Your task to perform on an android device: find which apps use the phone's location Image 0: 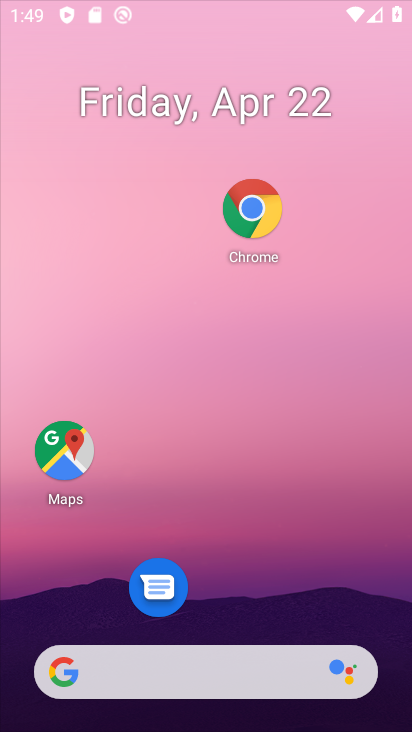
Step 0: drag from (223, 483) to (257, 130)
Your task to perform on an android device: find which apps use the phone's location Image 1: 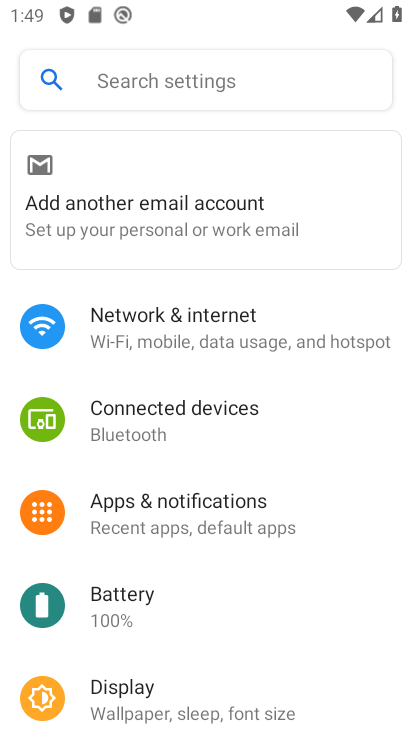
Step 1: drag from (206, 547) to (234, 91)
Your task to perform on an android device: find which apps use the phone's location Image 2: 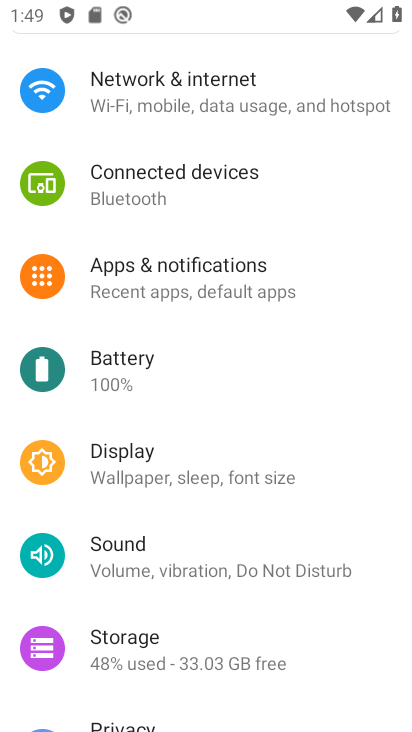
Step 2: drag from (166, 631) to (230, 240)
Your task to perform on an android device: find which apps use the phone's location Image 3: 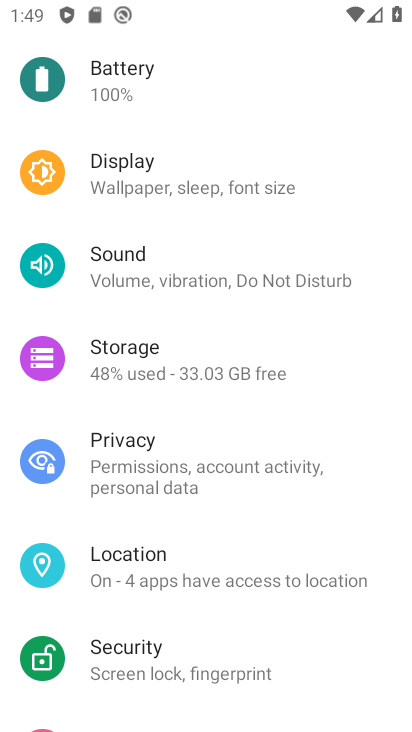
Step 3: click (180, 543)
Your task to perform on an android device: find which apps use the phone's location Image 4: 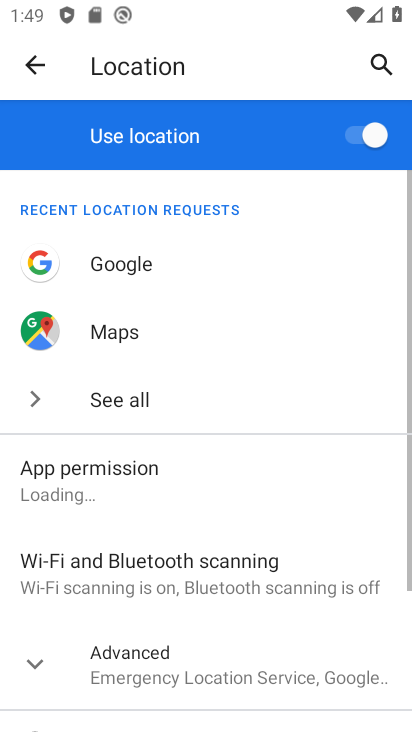
Step 4: drag from (223, 615) to (272, 199)
Your task to perform on an android device: find which apps use the phone's location Image 5: 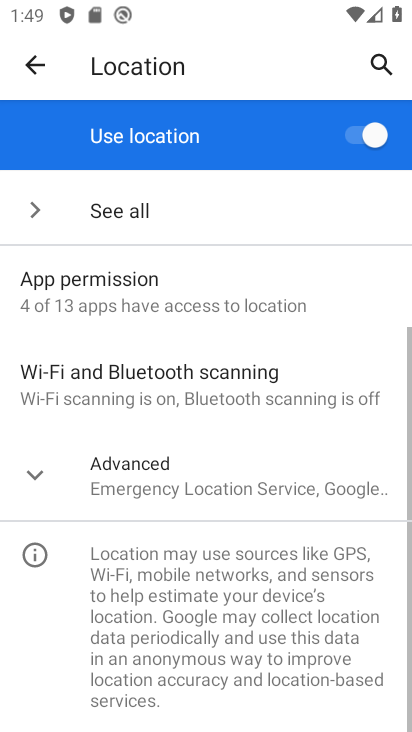
Step 5: click (144, 475)
Your task to perform on an android device: find which apps use the phone's location Image 6: 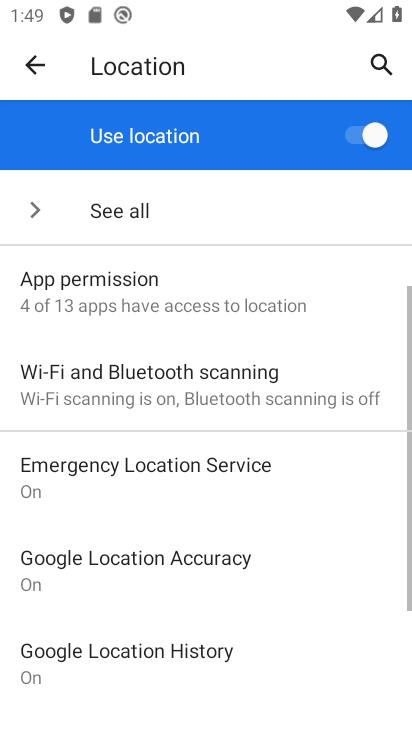
Step 6: click (205, 309)
Your task to perform on an android device: find which apps use the phone's location Image 7: 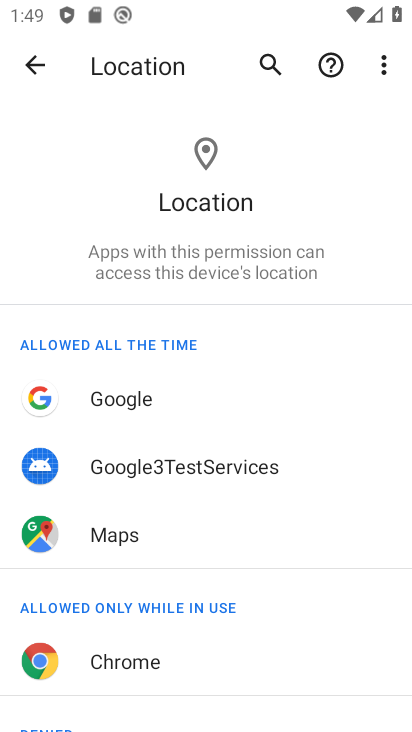
Step 7: task complete